Your task to perform on an android device: Find coffee shops on Maps Image 0: 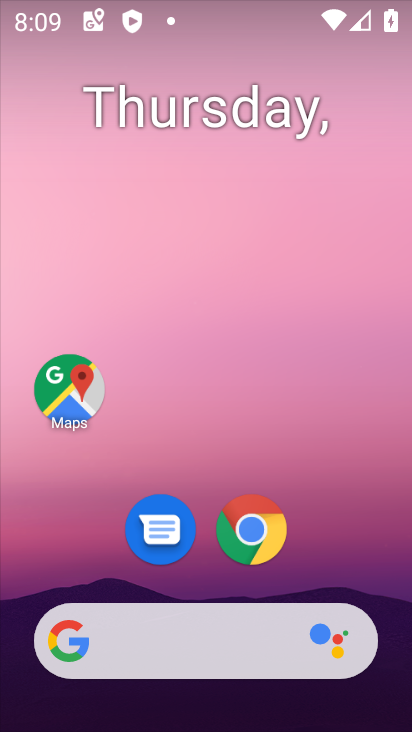
Step 0: click (65, 368)
Your task to perform on an android device: Find coffee shops on Maps Image 1: 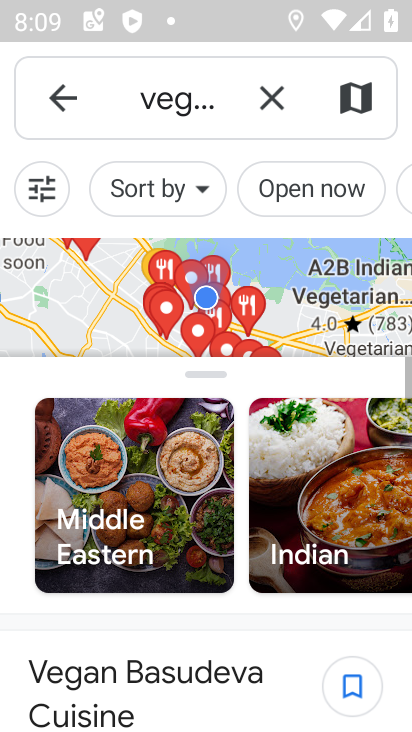
Step 1: click (259, 113)
Your task to perform on an android device: Find coffee shops on Maps Image 2: 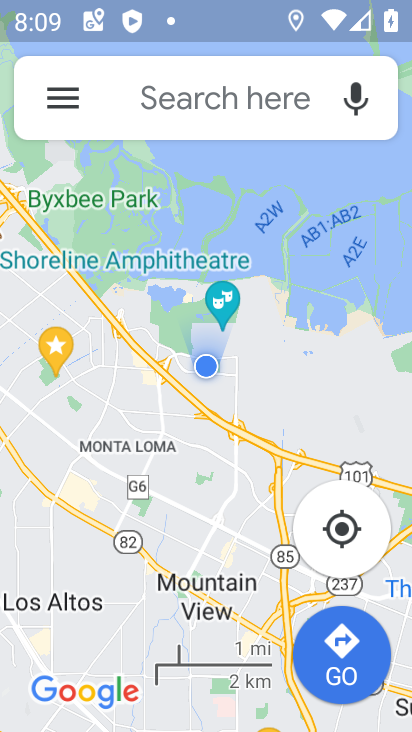
Step 2: click (256, 89)
Your task to perform on an android device: Find coffee shops on Maps Image 3: 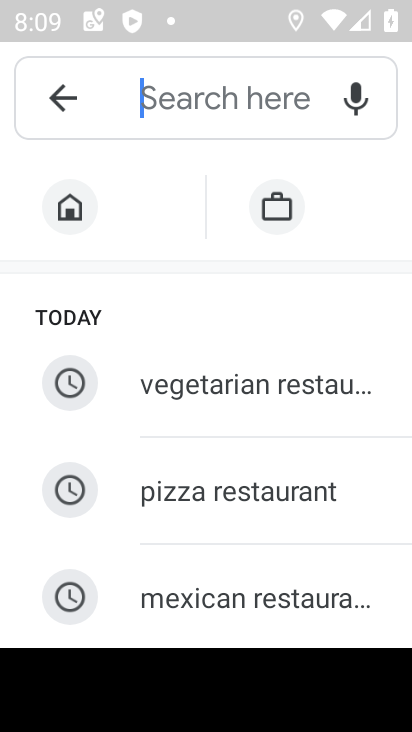
Step 3: drag from (217, 570) to (191, 279)
Your task to perform on an android device: Find coffee shops on Maps Image 4: 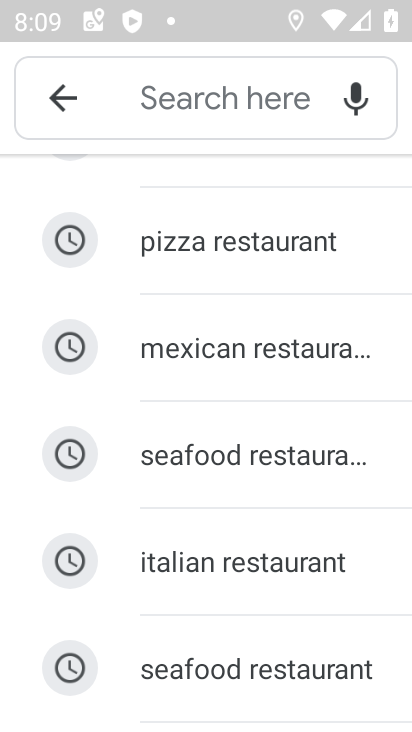
Step 4: drag from (219, 607) to (228, 317)
Your task to perform on an android device: Find coffee shops on Maps Image 5: 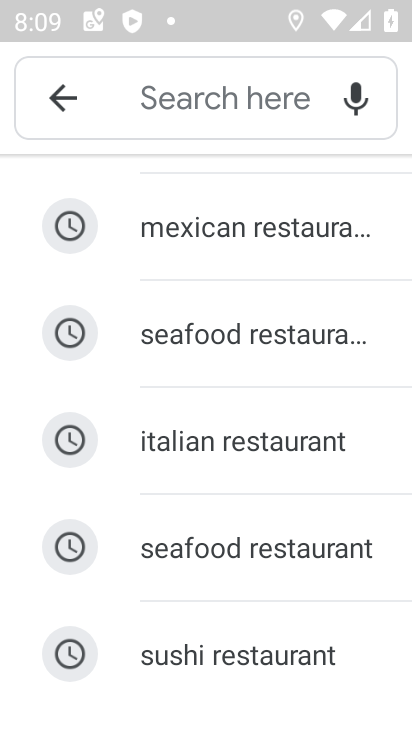
Step 5: drag from (230, 573) to (255, 364)
Your task to perform on an android device: Find coffee shops on Maps Image 6: 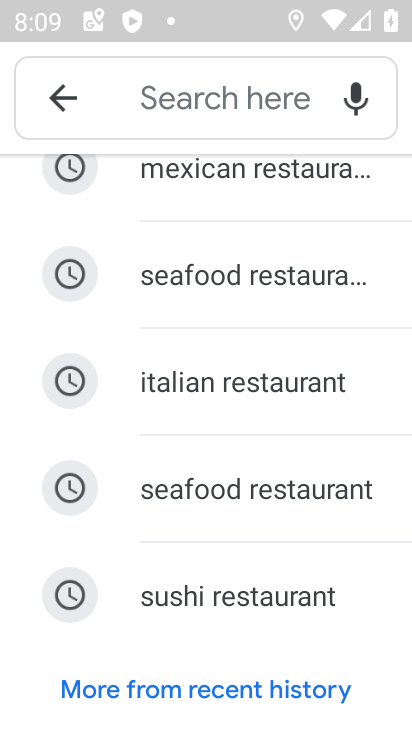
Step 6: click (234, 109)
Your task to perform on an android device: Find coffee shops on Maps Image 7: 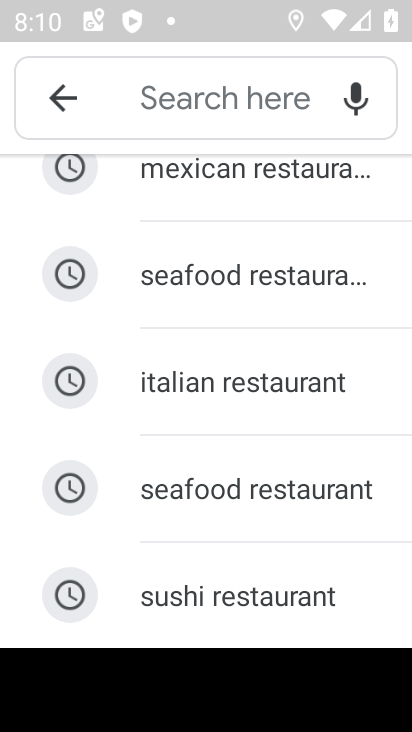
Step 7: type "coffee shops"
Your task to perform on an android device: Find coffee shops on Maps Image 8: 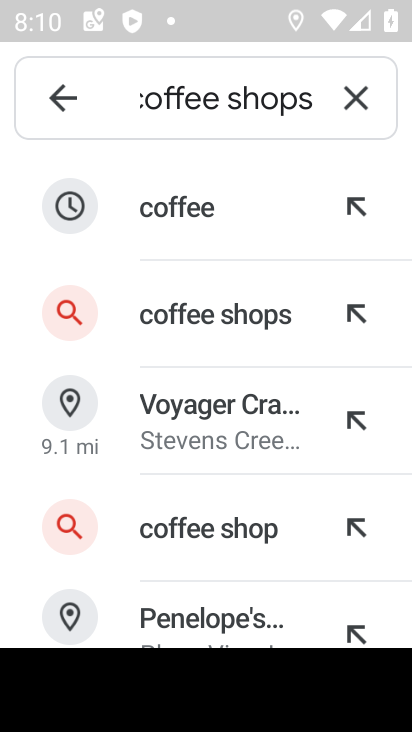
Step 8: click (246, 310)
Your task to perform on an android device: Find coffee shops on Maps Image 9: 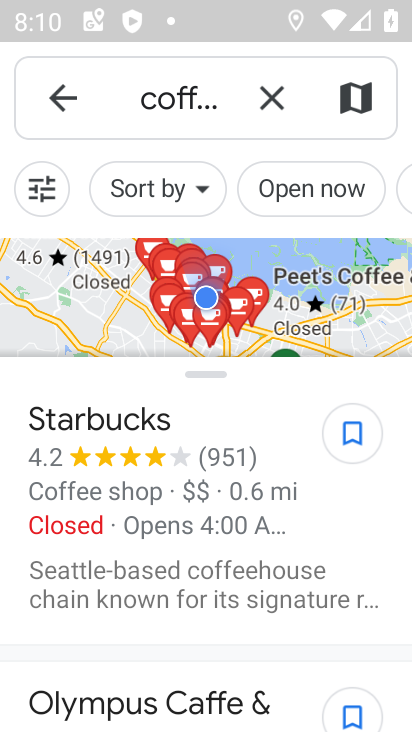
Step 9: task complete